Your task to perform on an android device: Open notification settings Image 0: 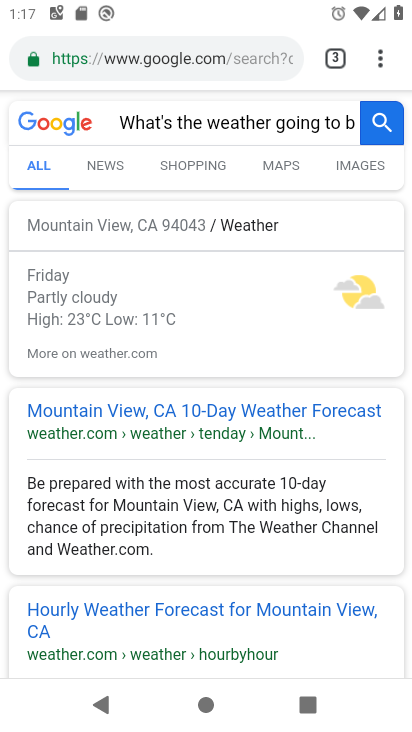
Step 0: press home button
Your task to perform on an android device: Open notification settings Image 1: 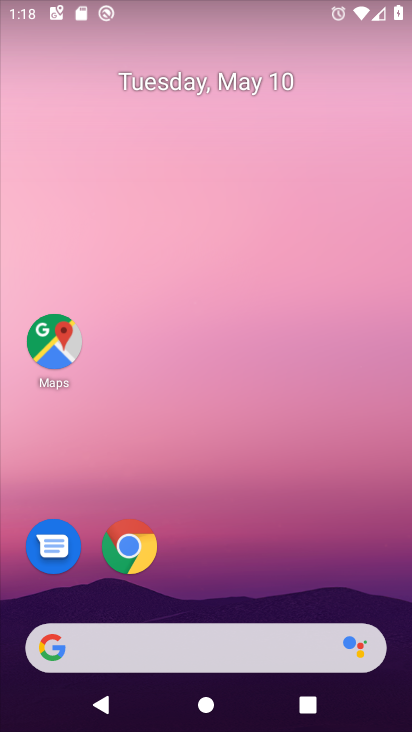
Step 1: drag from (193, 573) to (311, 39)
Your task to perform on an android device: Open notification settings Image 2: 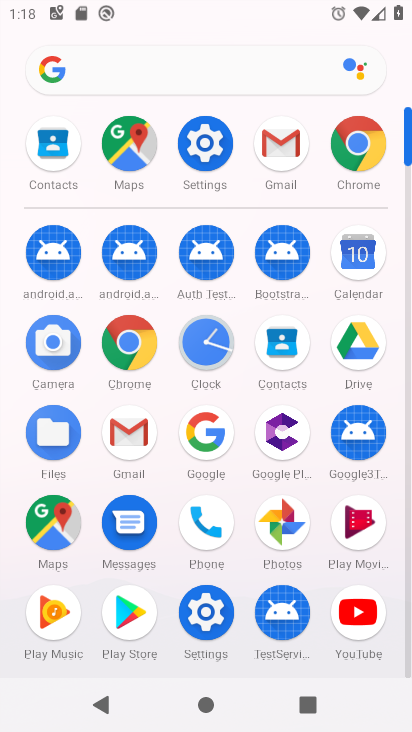
Step 2: click (215, 170)
Your task to perform on an android device: Open notification settings Image 3: 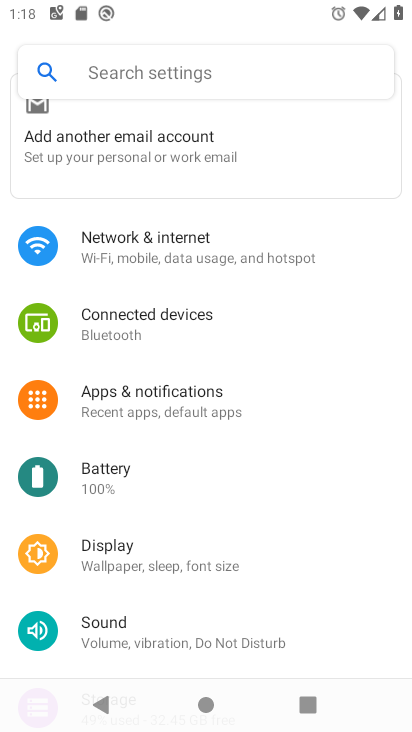
Step 3: click (129, 403)
Your task to perform on an android device: Open notification settings Image 4: 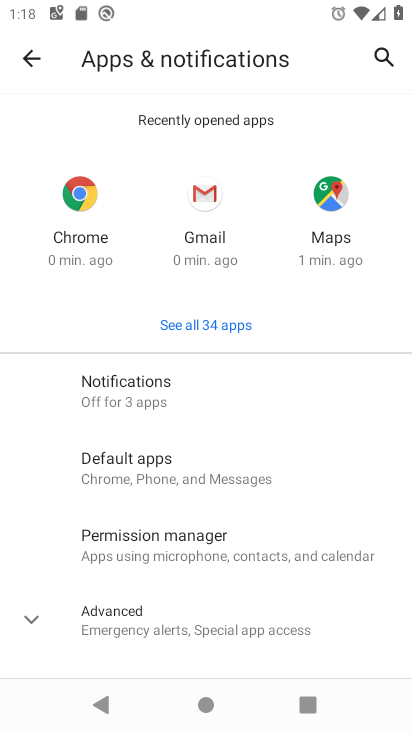
Step 4: task complete